Your task to perform on an android device: Search for custom t-shirts on Etsy. Image 0: 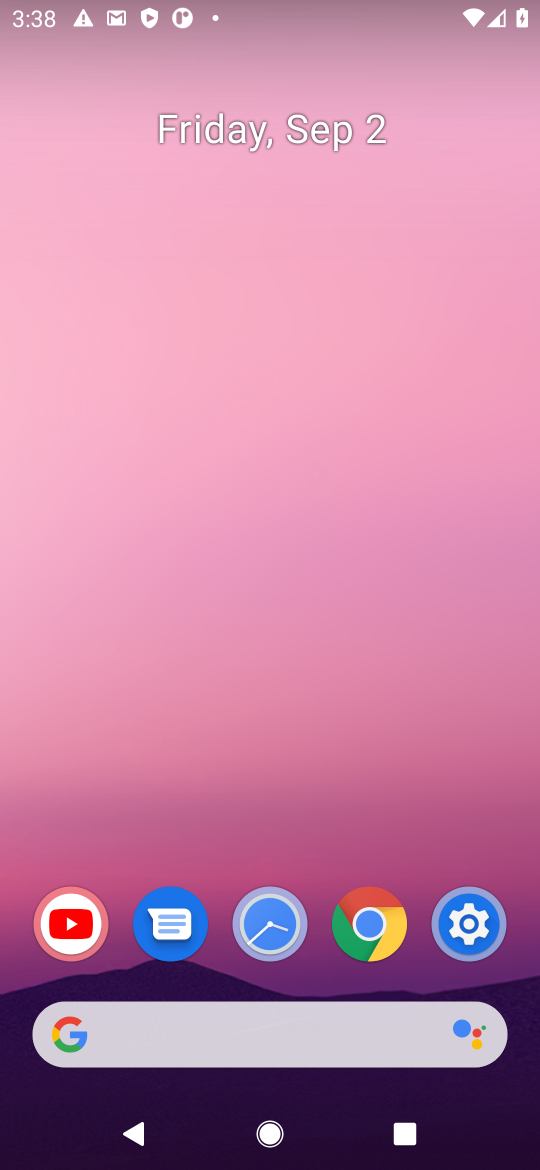
Step 0: press home button
Your task to perform on an android device: Search for custom t-shirts on Etsy. Image 1: 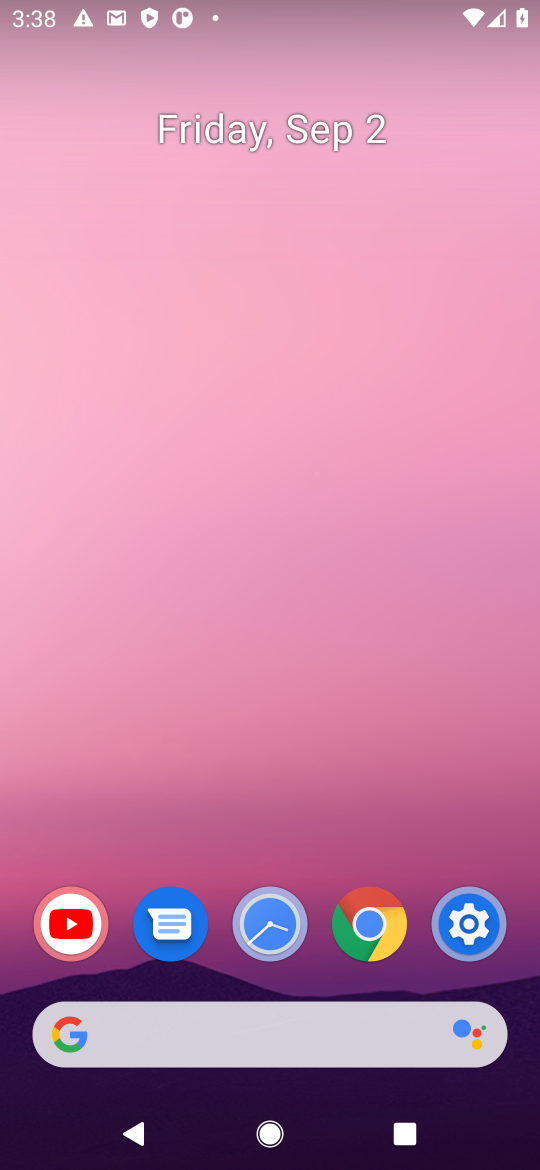
Step 1: click (373, 1037)
Your task to perform on an android device: Search for custom t-shirts on Etsy. Image 2: 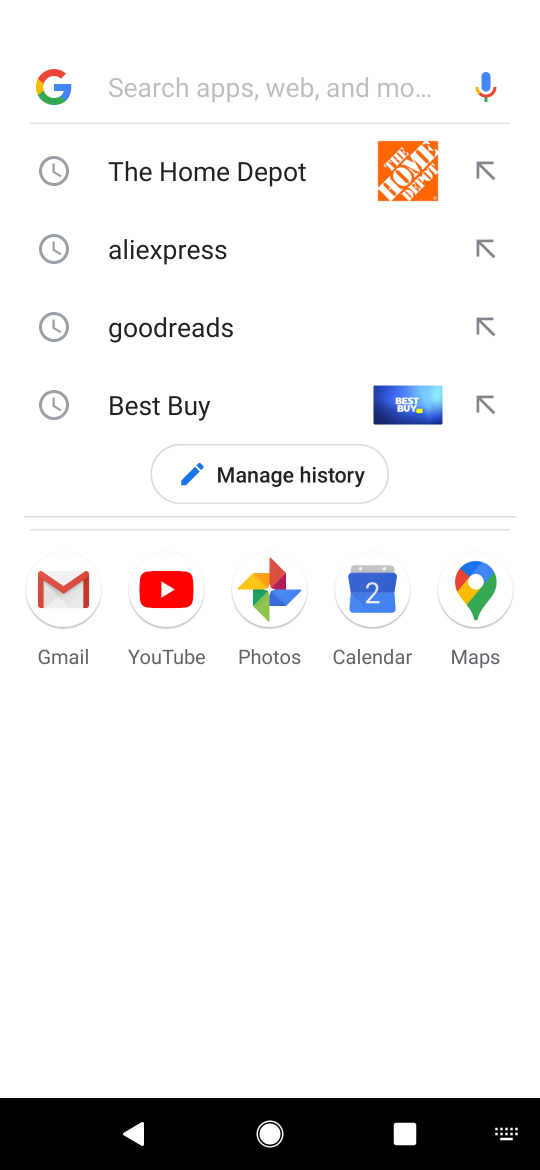
Step 2: press enter
Your task to perform on an android device: Search for custom t-shirts on Etsy. Image 3: 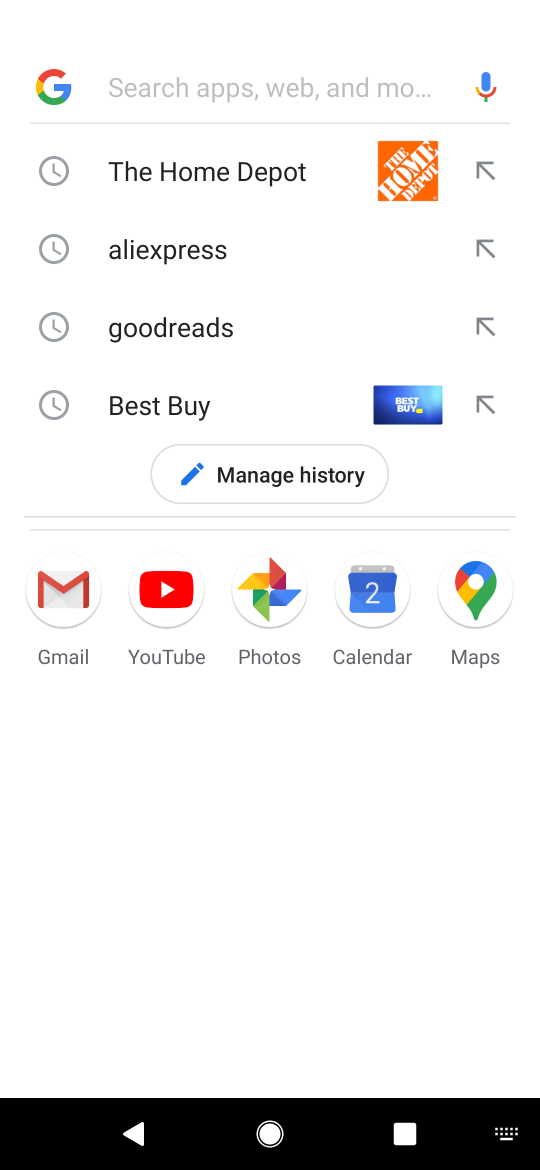
Step 3: type "etsy"
Your task to perform on an android device: Search for custom t-shirts on Etsy. Image 4: 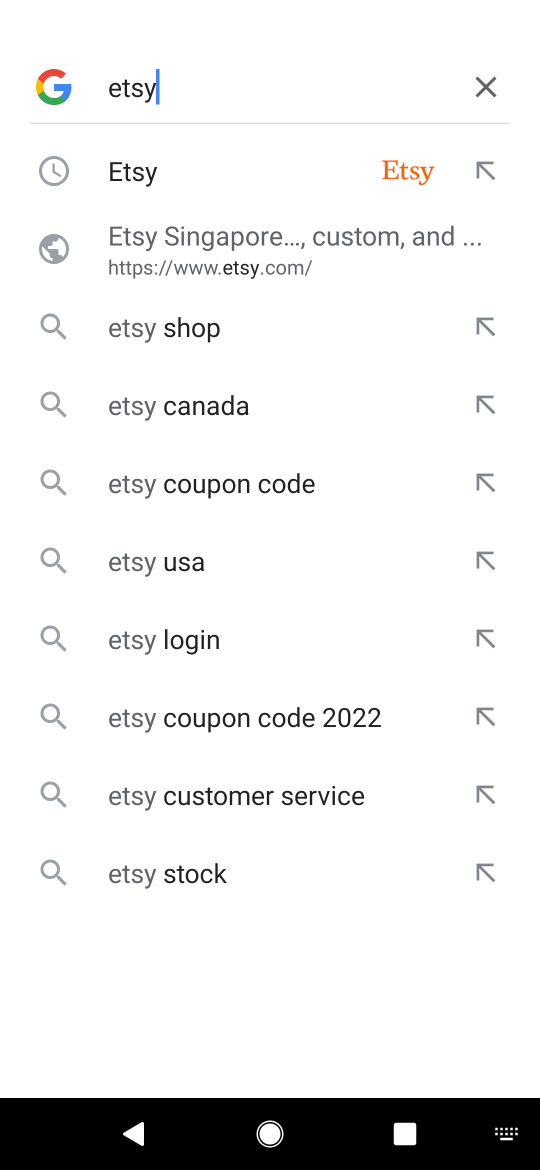
Step 4: click (256, 176)
Your task to perform on an android device: Search for custom t-shirts on Etsy. Image 5: 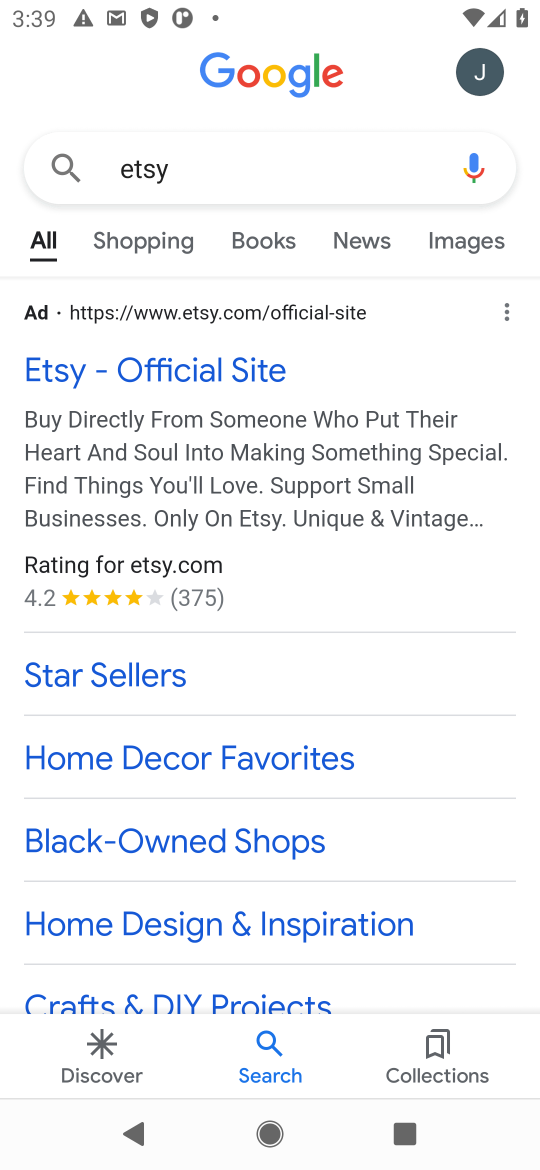
Step 5: click (222, 371)
Your task to perform on an android device: Search for custom t-shirts on Etsy. Image 6: 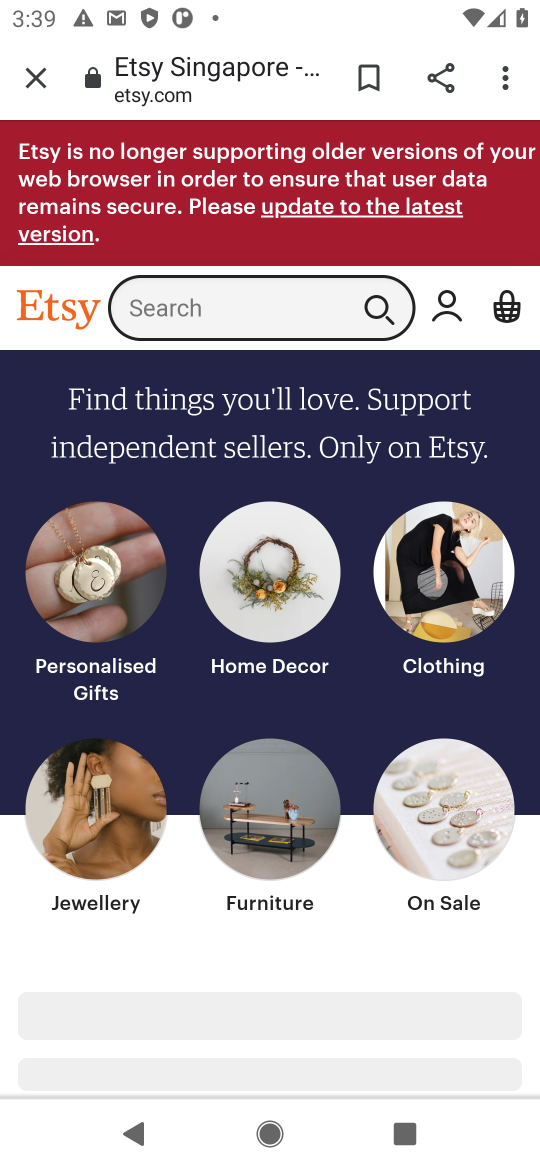
Step 6: click (239, 304)
Your task to perform on an android device: Search for custom t-shirts on Etsy. Image 7: 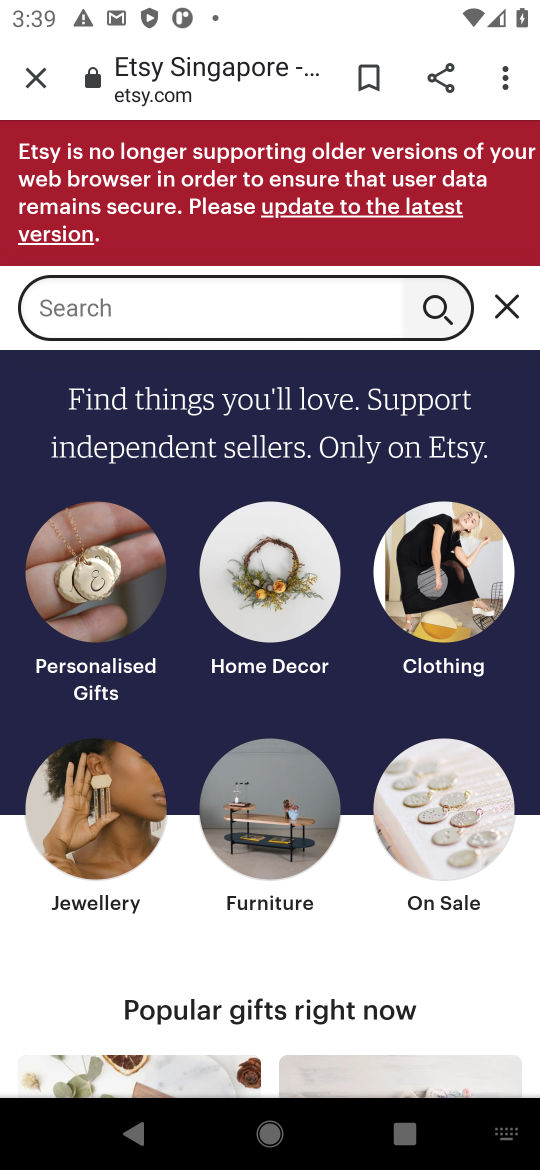
Step 7: press enter
Your task to perform on an android device: Search for custom t-shirts on Etsy. Image 8: 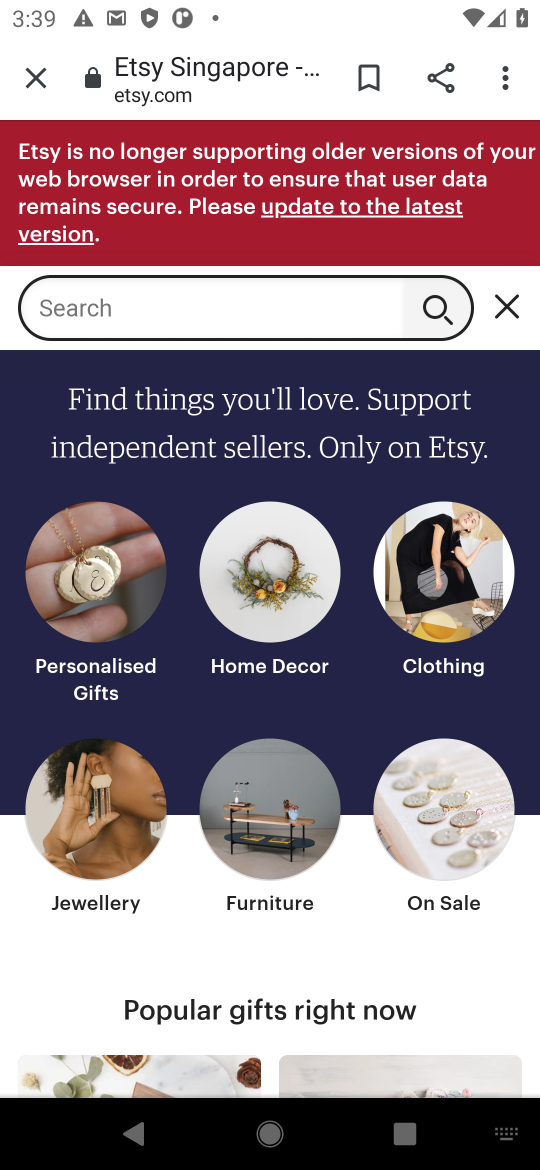
Step 8: type "custom t shirts"
Your task to perform on an android device: Search for custom t-shirts on Etsy. Image 9: 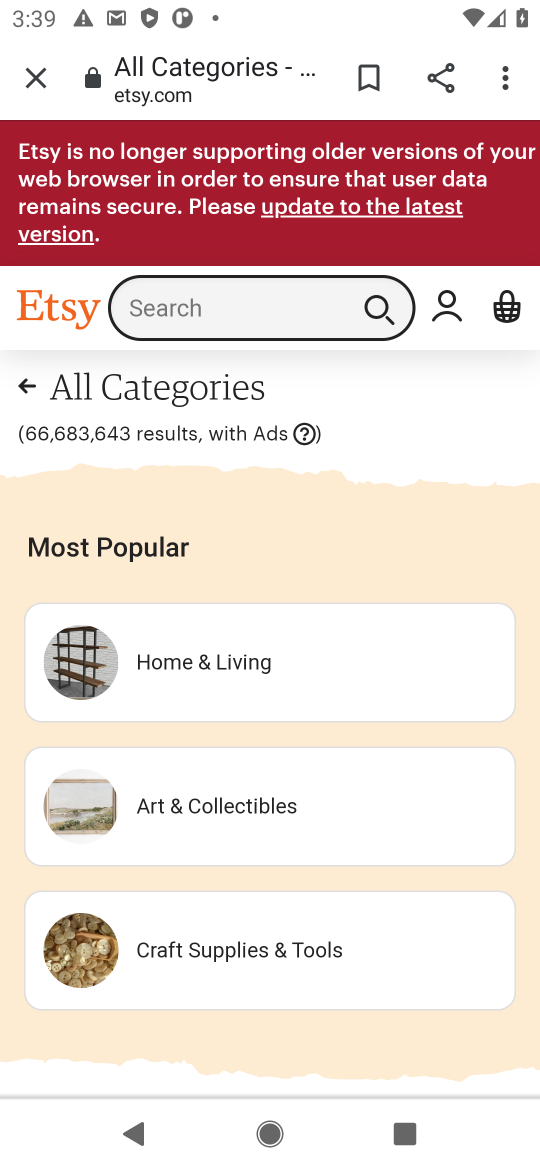
Step 9: click (224, 305)
Your task to perform on an android device: Search for custom t-shirts on Etsy. Image 10: 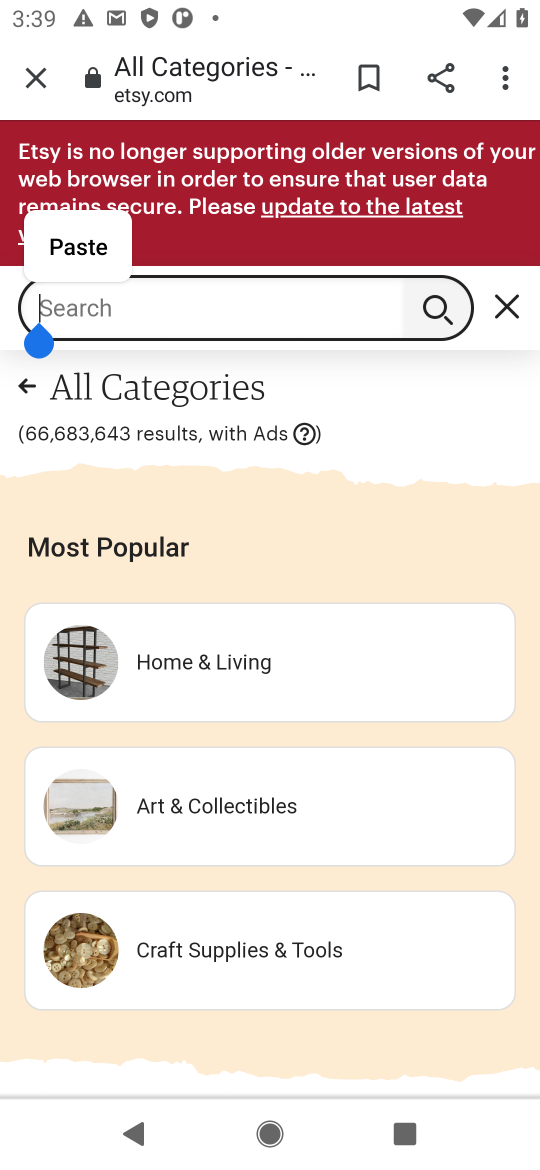
Step 10: type "custom t shirts"
Your task to perform on an android device: Search for custom t-shirts on Etsy. Image 11: 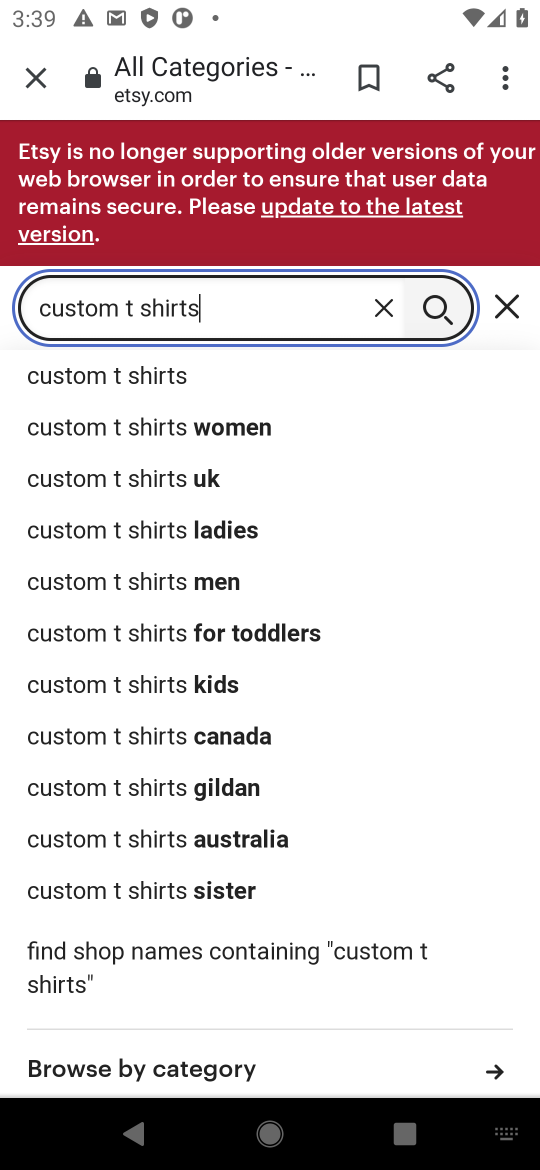
Step 11: click (159, 373)
Your task to perform on an android device: Search for custom t-shirts on Etsy. Image 12: 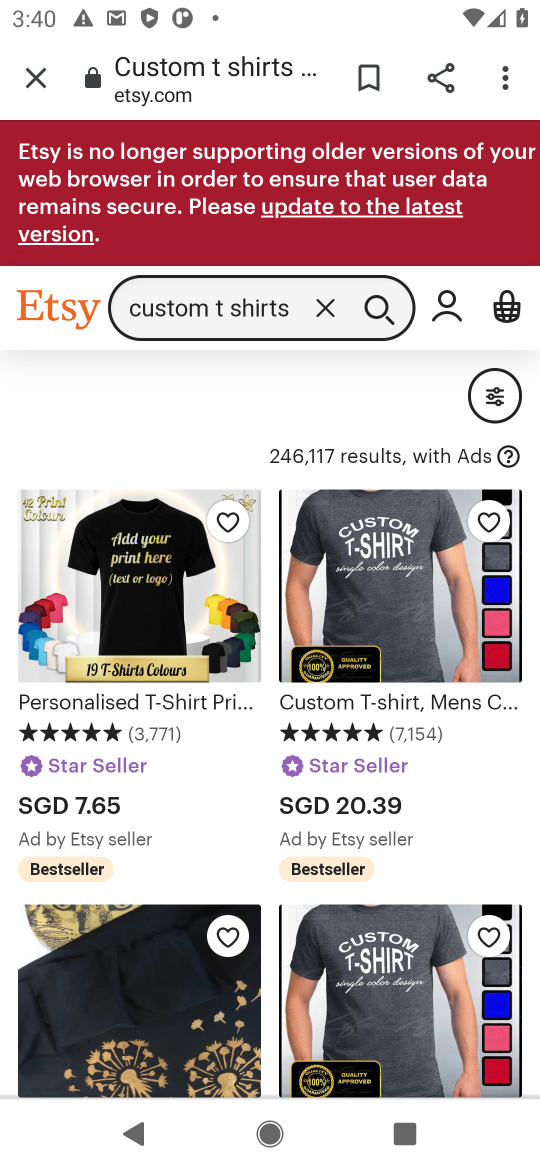
Step 12: task complete